Your task to perform on an android device: Go to display settings Image 0: 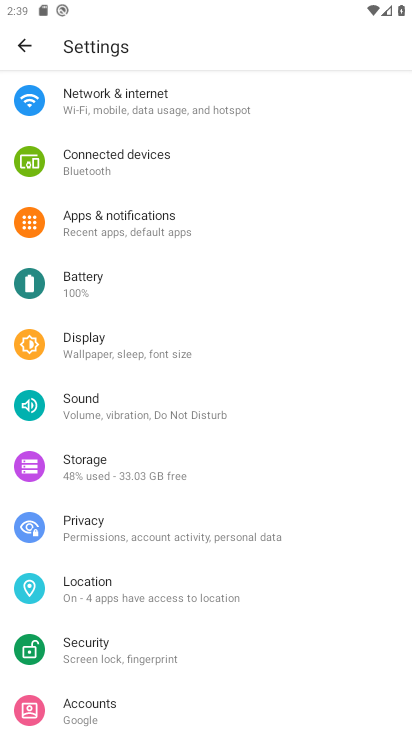
Step 0: click (79, 333)
Your task to perform on an android device: Go to display settings Image 1: 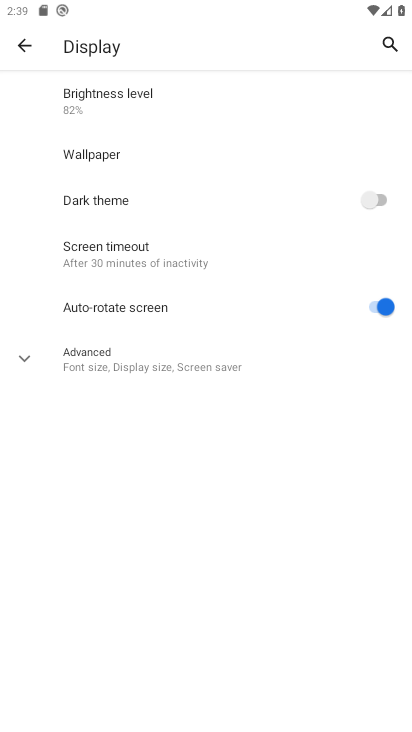
Step 1: task complete